Your task to perform on an android device: Open Chrome and go to settings Image 0: 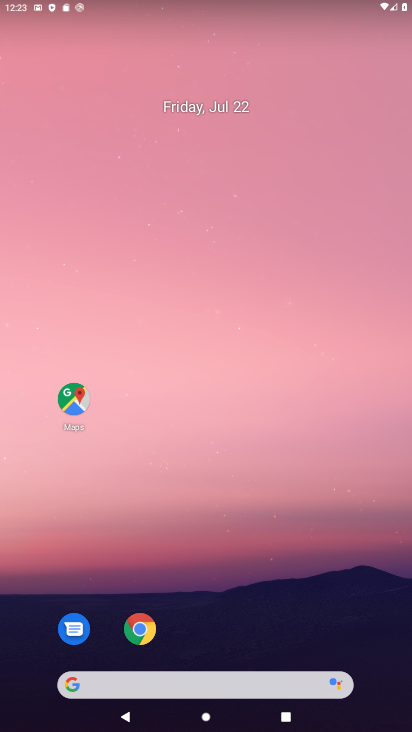
Step 0: click (194, 52)
Your task to perform on an android device: Open Chrome and go to settings Image 1: 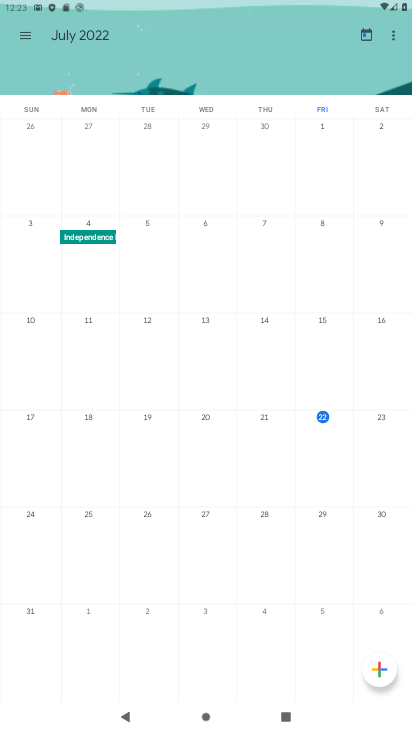
Step 1: task complete